Your task to perform on an android device: Search for pizza restaurants on Maps Image 0: 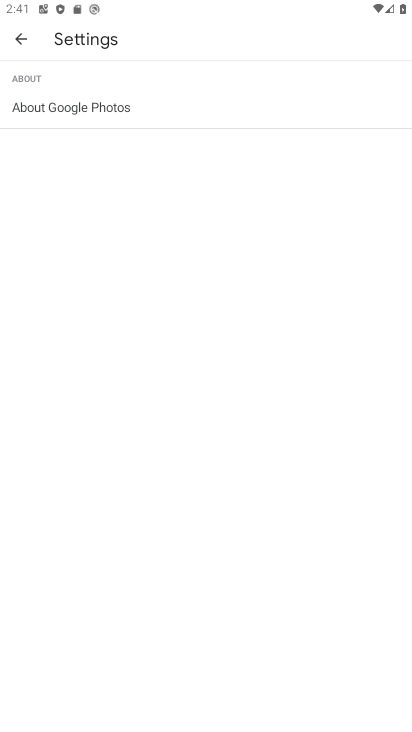
Step 0: press home button
Your task to perform on an android device: Search for pizza restaurants on Maps Image 1: 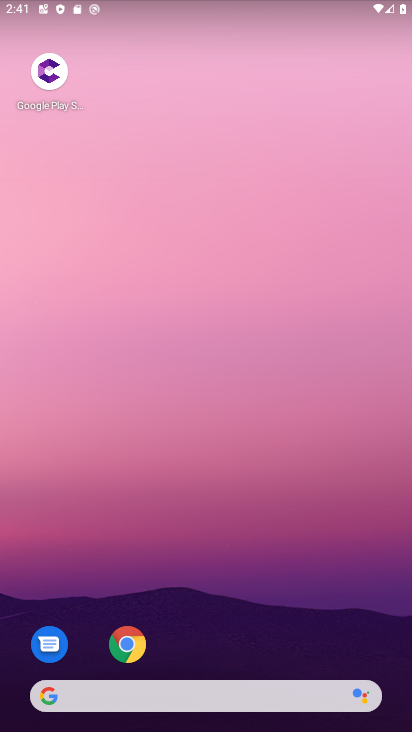
Step 1: drag from (216, 669) to (223, 271)
Your task to perform on an android device: Search for pizza restaurants on Maps Image 2: 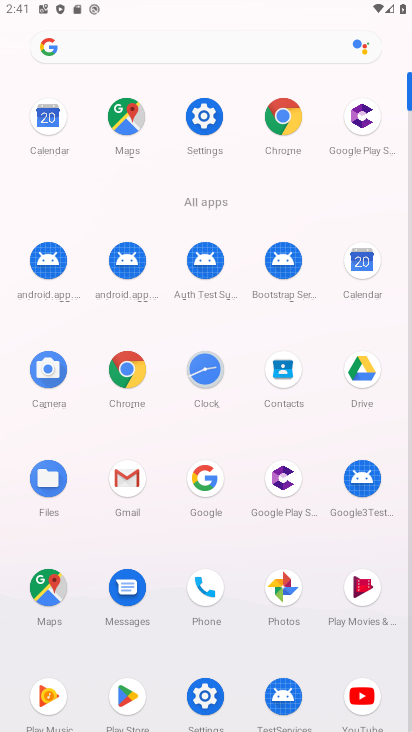
Step 2: click (56, 600)
Your task to perform on an android device: Search for pizza restaurants on Maps Image 3: 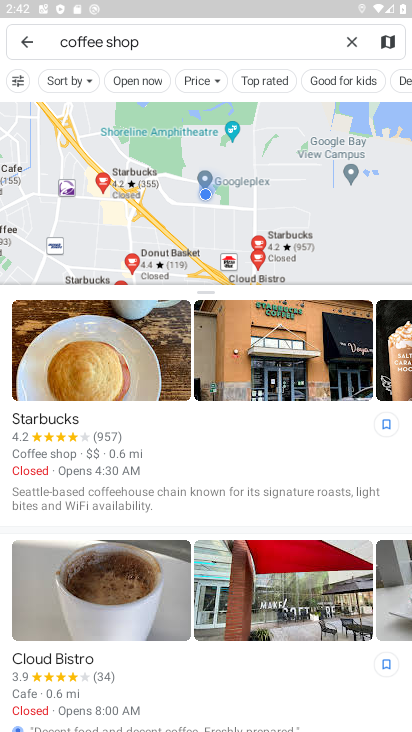
Step 3: click (268, 43)
Your task to perform on an android device: Search for pizza restaurants on Maps Image 4: 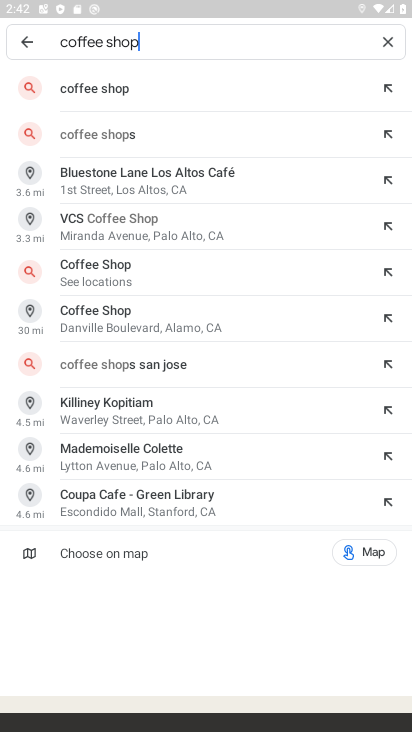
Step 4: click (342, 46)
Your task to perform on an android device: Search for pizza restaurants on Maps Image 5: 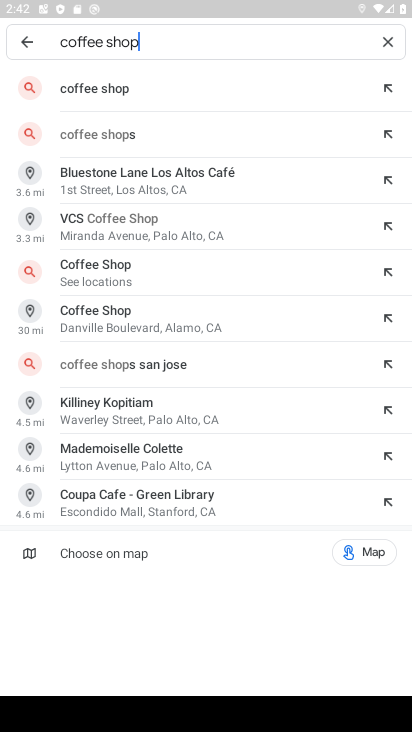
Step 5: click (393, 45)
Your task to perform on an android device: Search for pizza restaurants on Maps Image 6: 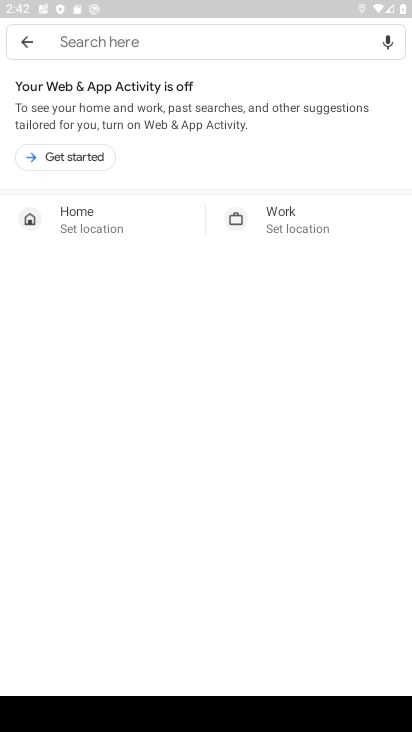
Step 6: type "pizza"
Your task to perform on an android device: Search for pizza restaurants on Maps Image 7: 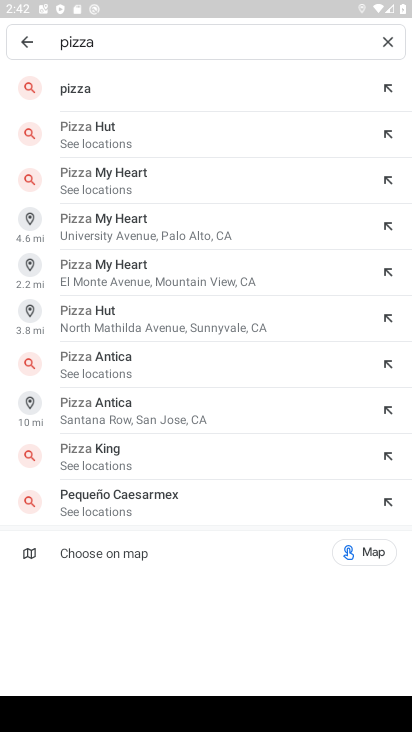
Step 7: click (75, 75)
Your task to perform on an android device: Search for pizza restaurants on Maps Image 8: 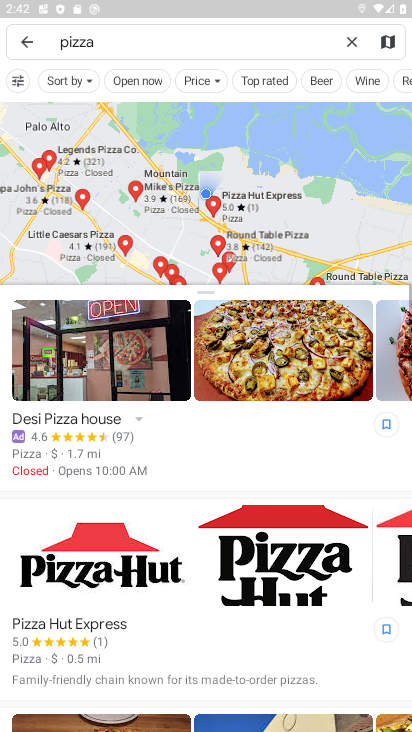
Step 8: task complete